Your task to perform on an android device: turn off wifi Image 0: 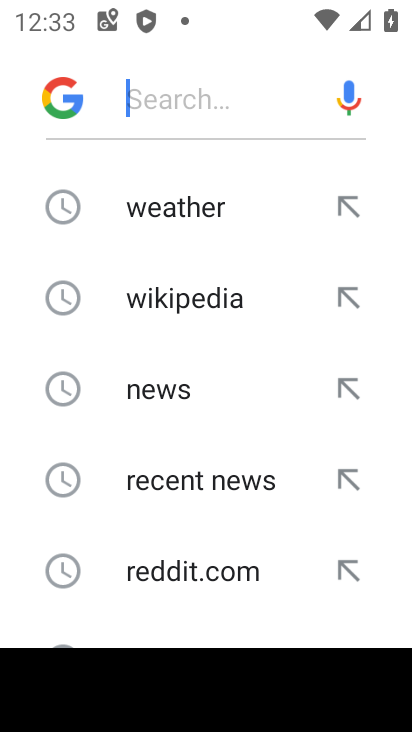
Step 0: press home button
Your task to perform on an android device: turn off wifi Image 1: 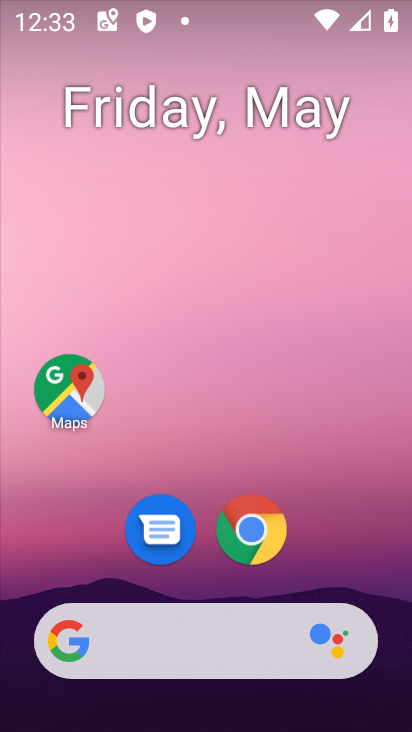
Step 1: drag from (339, 595) to (274, 308)
Your task to perform on an android device: turn off wifi Image 2: 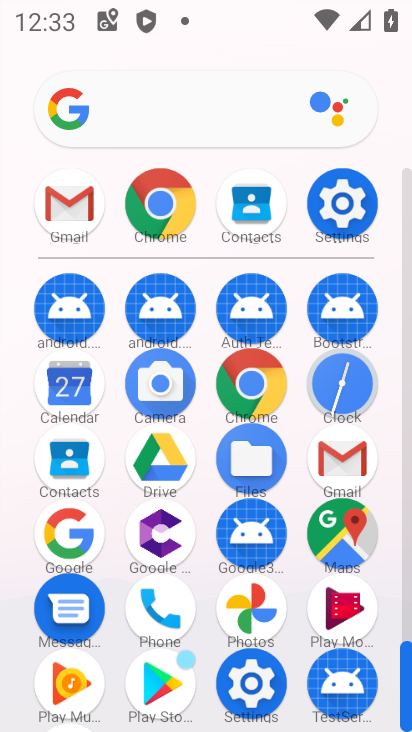
Step 2: click (341, 219)
Your task to perform on an android device: turn off wifi Image 3: 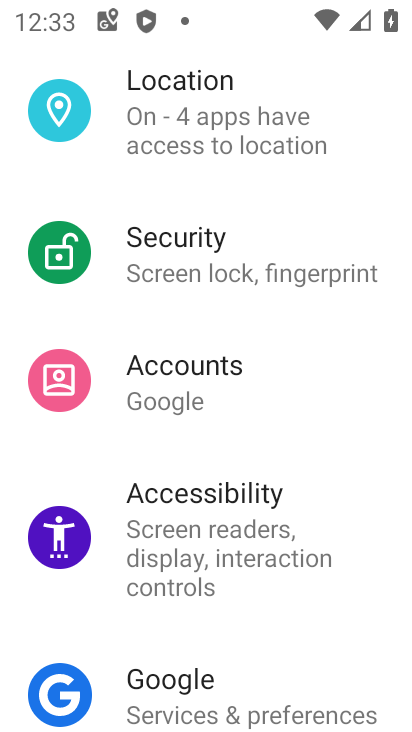
Step 3: drag from (244, 133) to (329, 494)
Your task to perform on an android device: turn off wifi Image 4: 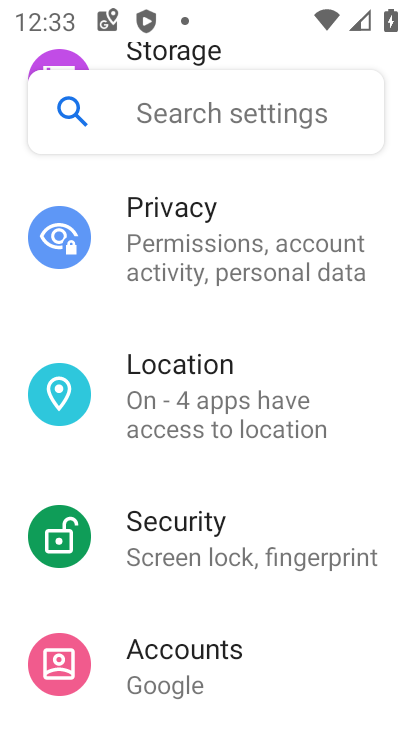
Step 4: drag from (254, 175) to (205, 713)
Your task to perform on an android device: turn off wifi Image 5: 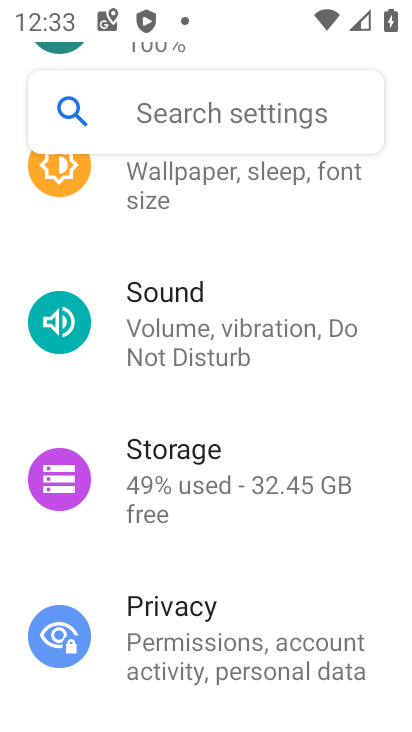
Step 5: drag from (212, 285) to (257, 724)
Your task to perform on an android device: turn off wifi Image 6: 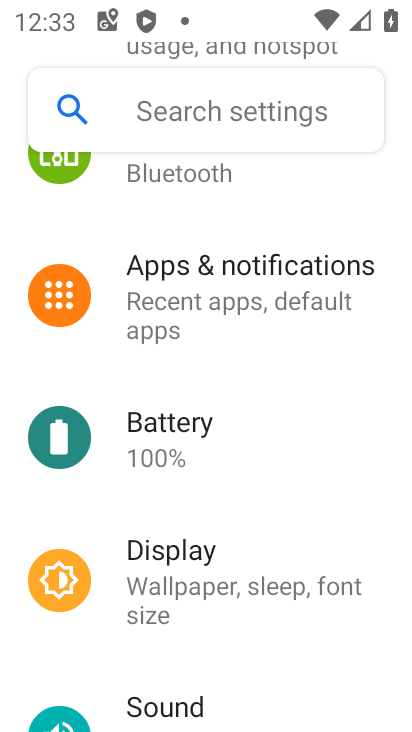
Step 6: drag from (228, 401) to (251, 576)
Your task to perform on an android device: turn off wifi Image 7: 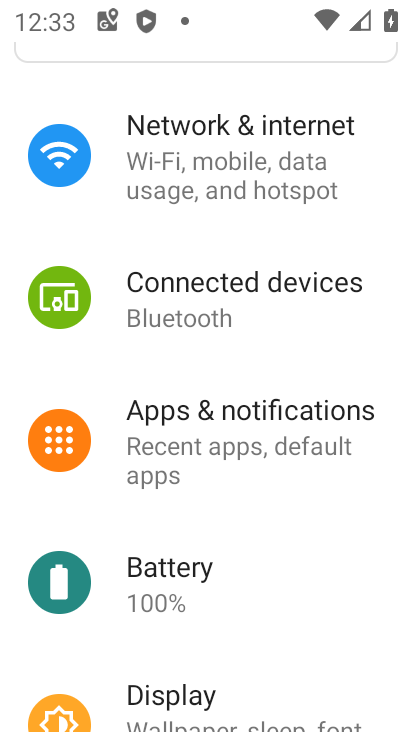
Step 7: click (236, 297)
Your task to perform on an android device: turn off wifi Image 8: 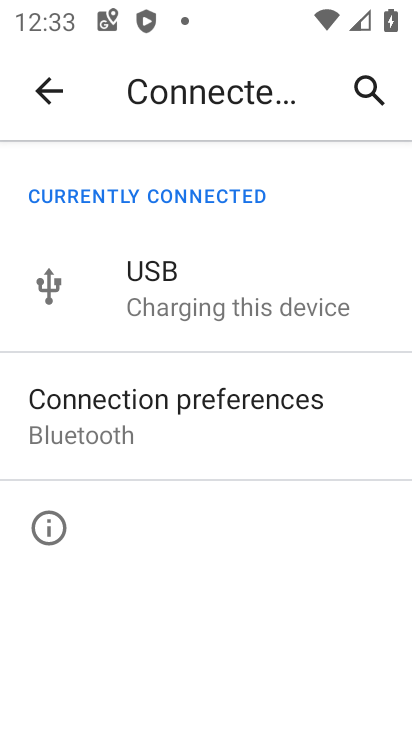
Step 8: click (47, 103)
Your task to perform on an android device: turn off wifi Image 9: 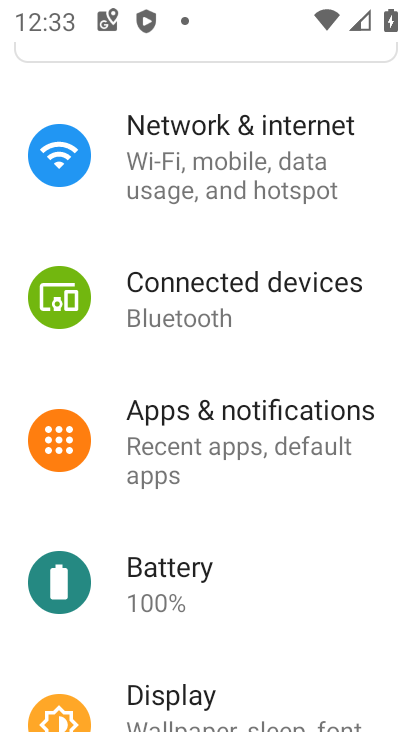
Step 9: click (213, 149)
Your task to perform on an android device: turn off wifi Image 10: 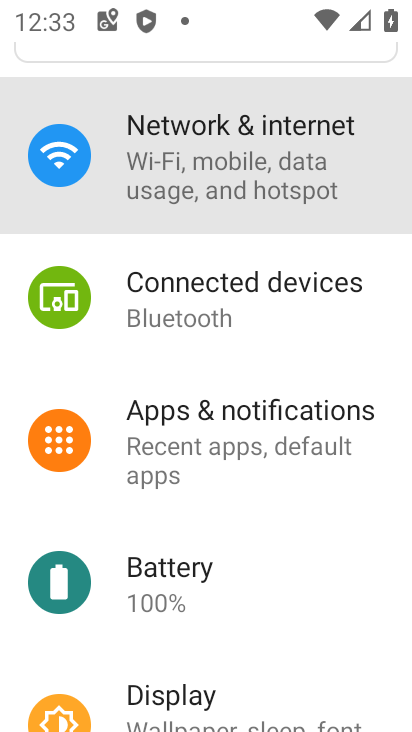
Step 10: click (213, 149)
Your task to perform on an android device: turn off wifi Image 11: 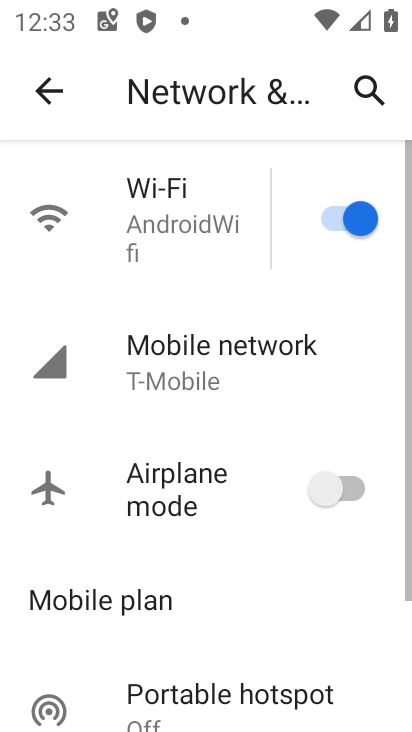
Step 11: task complete